Your task to perform on an android device: Open Chrome and go to settings Image 0: 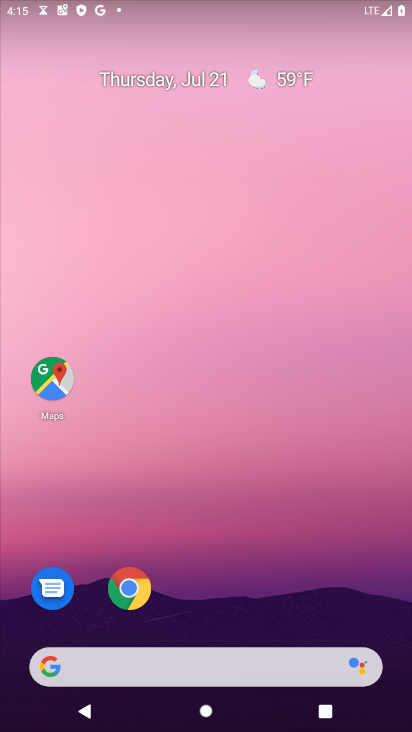
Step 0: click (127, 591)
Your task to perform on an android device: Open Chrome and go to settings Image 1: 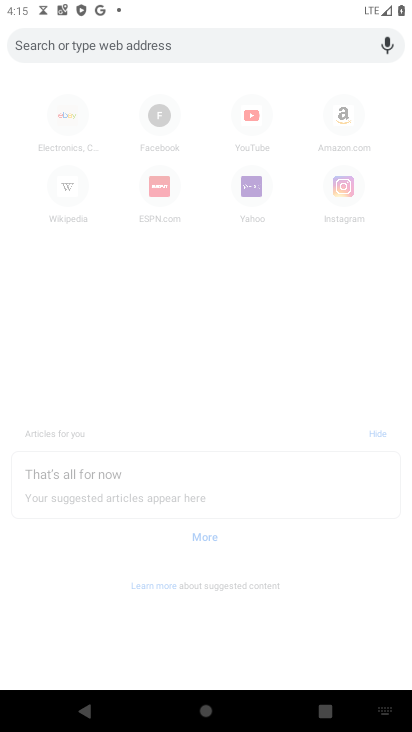
Step 1: click (283, 419)
Your task to perform on an android device: Open Chrome and go to settings Image 2: 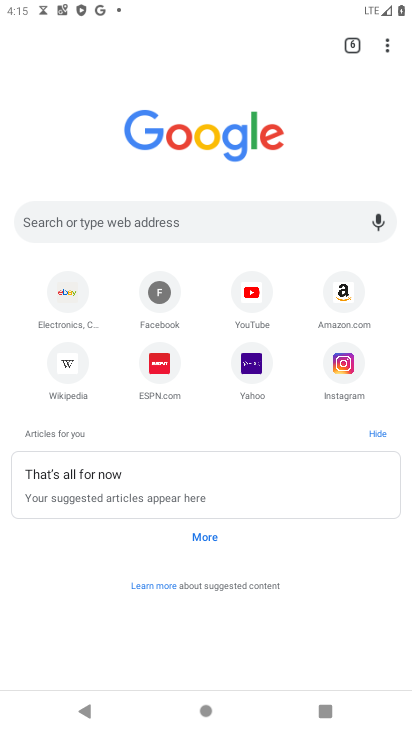
Step 2: click (390, 49)
Your task to perform on an android device: Open Chrome and go to settings Image 3: 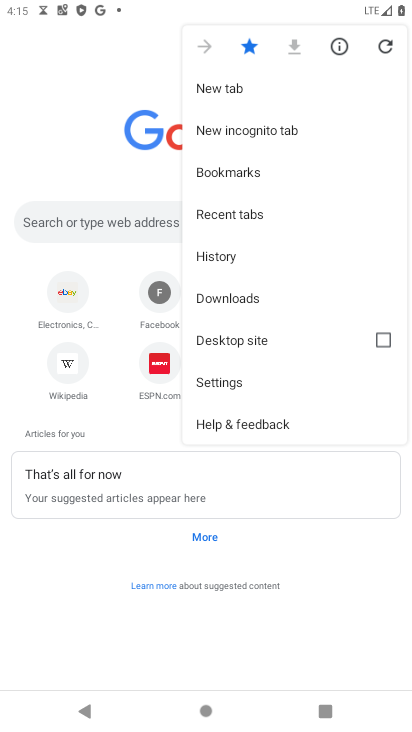
Step 3: click (213, 376)
Your task to perform on an android device: Open Chrome and go to settings Image 4: 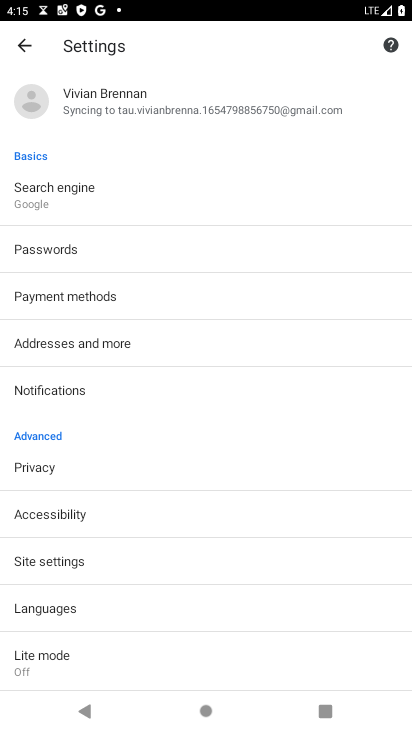
Step 4: task complete